Your task to perform on an android device: turn off picture-in-picture Image 0: 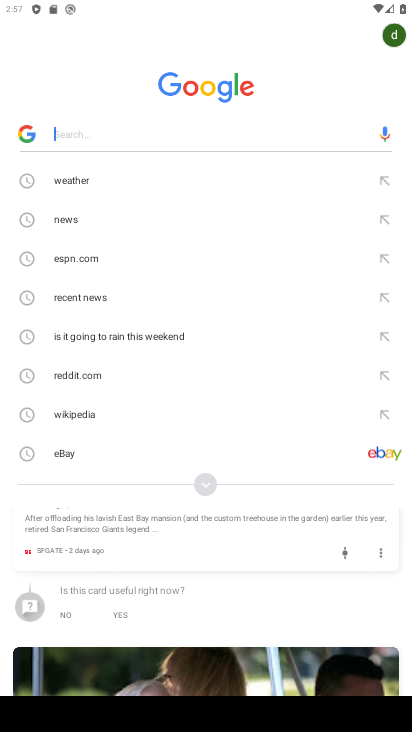
Step 0: press home button
Your task to perform on an android device: turn off picture-in-picture Image 1: 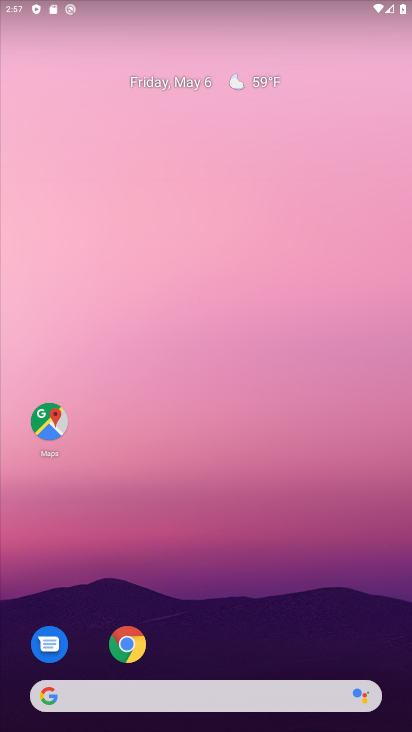
Step 1: drag from (212, 659) to (213, 268)
Your task to perform on an android device: turn off picture-in-picture Image 2: 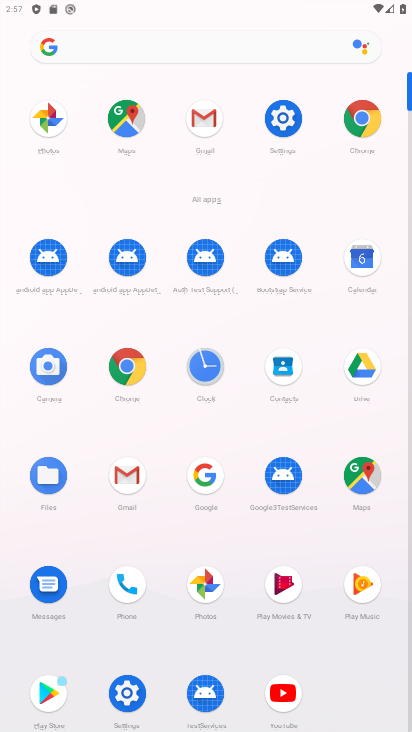
Step 2: click (291, 107)
Your task to perform on an android device: turn off picture-in-picture Image 3: 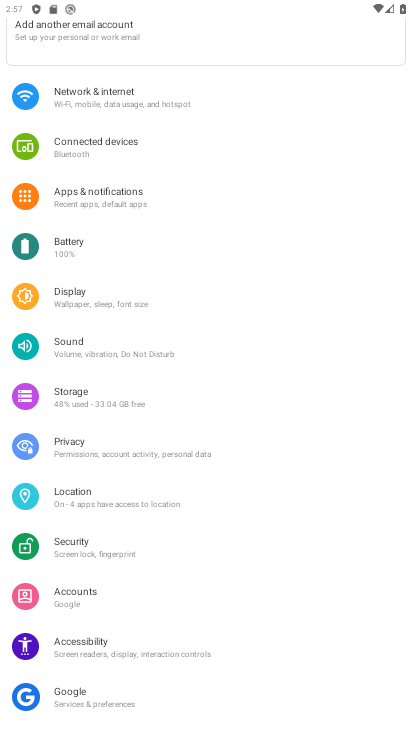
Step 3: click (111, 200)
Your task to perform on an android device: turn off picture-in-picture Image 4: 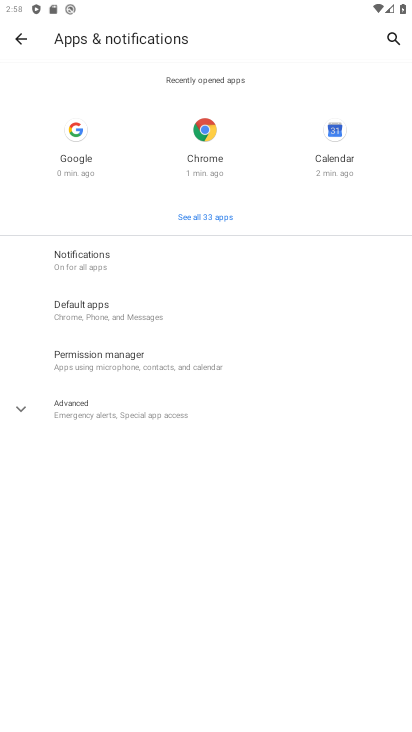
Step 4: click (77, 405)
Your task to perform on an android device: turn off picture-in-picture Image 5: 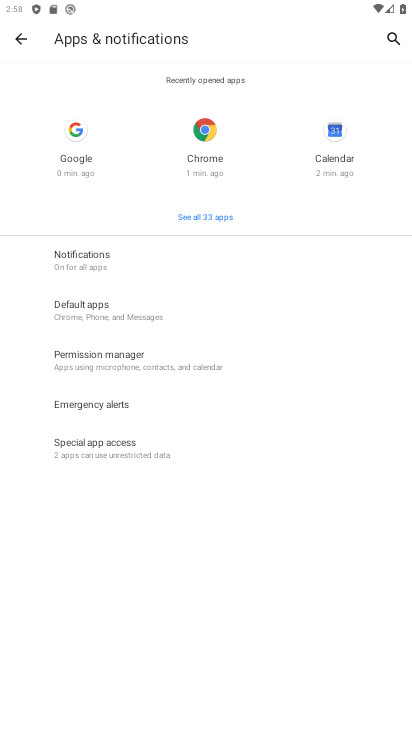
Step 5: click (121, 451)
Your task to perform on an android device: turn off picture-in-picture Image 6: 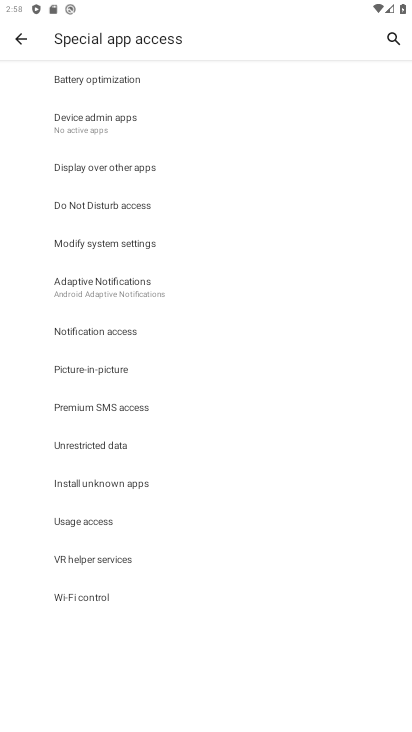
Step 6: click (112, 370)
Your task to perform on an android device: turn off picture-in-picture Image 7: 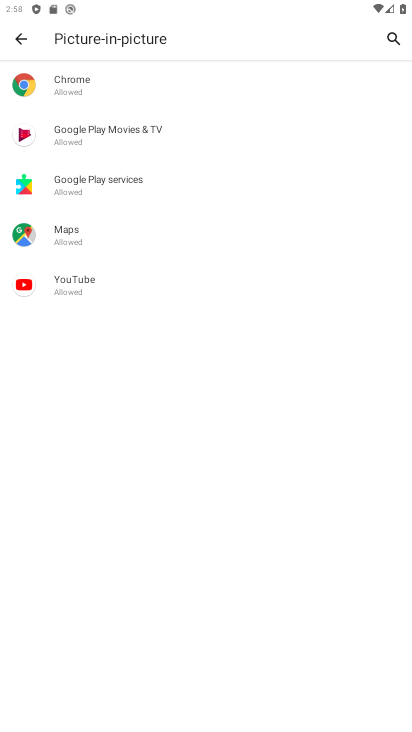
Step 7: click (72, 283)
Your task to perform on an android device: turn off picture-in-picture Image 8: 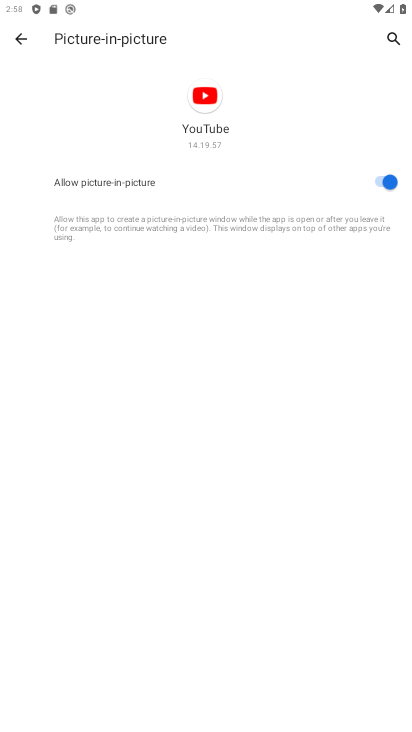
Step 8: click (381, 181)
Your task to perform on an android device: turn off picture-in-picture Image 9: 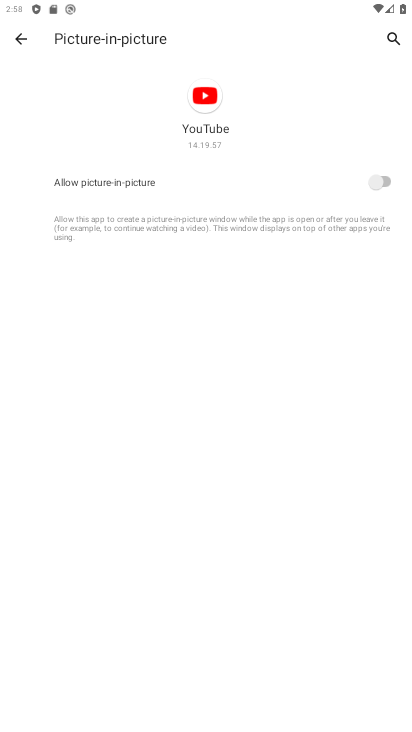
Step 9: task complete